Your task to perform on an android device: Go to Google maps Image 0: 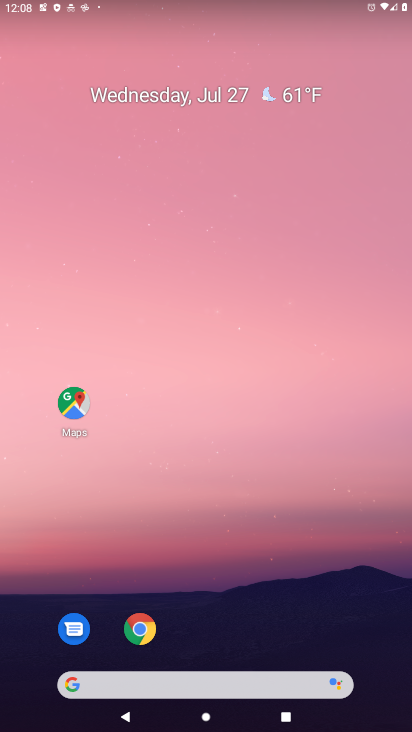
Step 0: drag from (293, 646) to (267, 0)
Your task to perform on an android device: Go to Google maps Image 1: 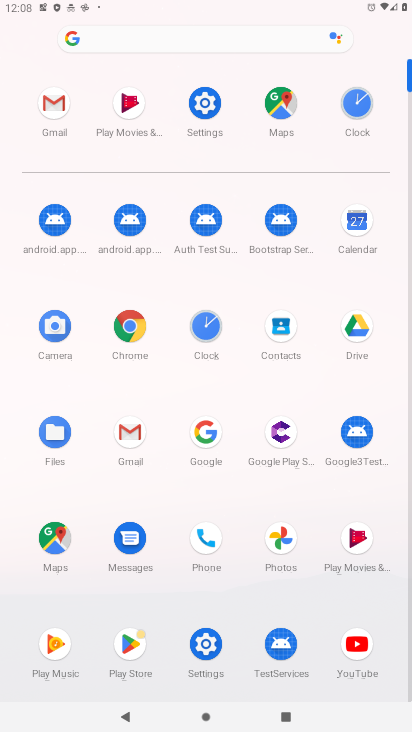
Step 1: click (74, 549)
Your task to perform on an android device: Go to Google maps Image 2: 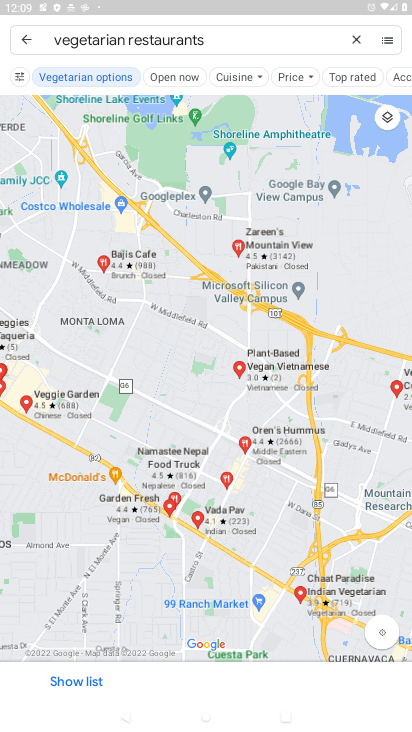
Step 2: task complete